Your task to perform on an android device: turn on the 24-hour format for clock Image 0: 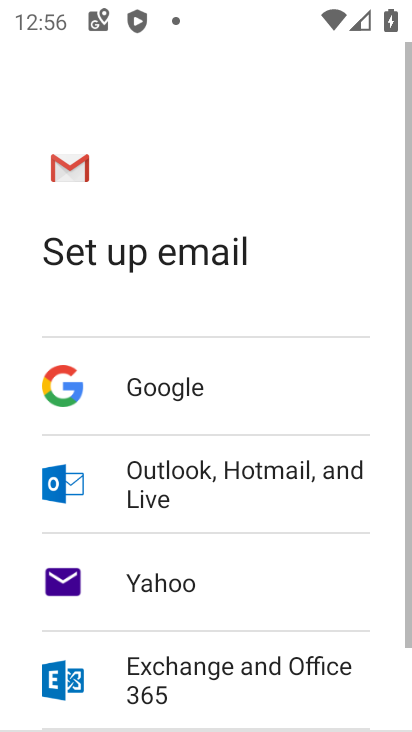
Step 0: press home button
Your task to perform on an android device: turn on the 24-hour format for clock Image 1: 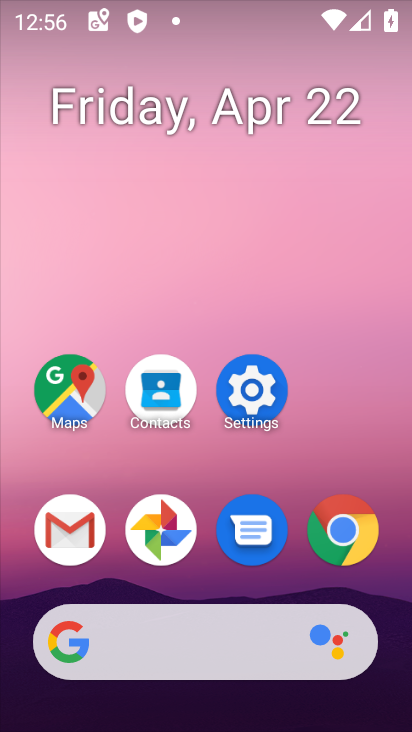
Step 1: drag from (229, 716) to (160, 2)
Your task to perform on an android device: turn on the 24-hour format for clock Image 2: 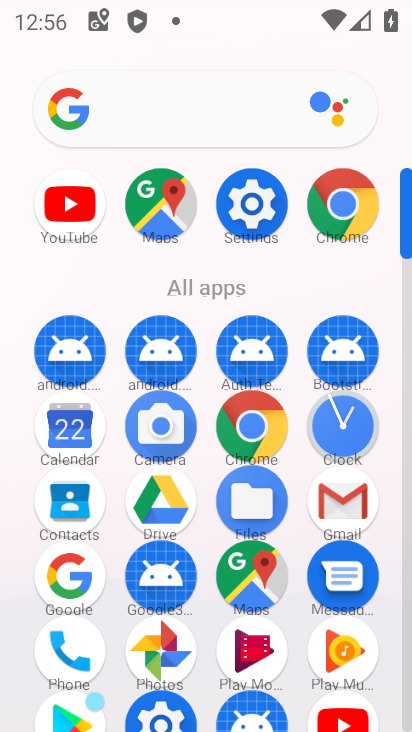
Step 2: click (348, 417)
Your task to perform on an android device: turn on the 24-hour format for clock Image 3: 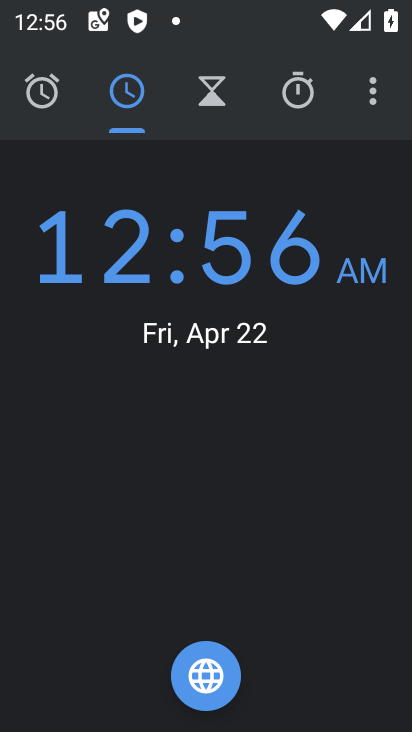
Step 3: click (374, 99)
Your task to perform on an android device: turn on the 24-hour format for clock Image 4: 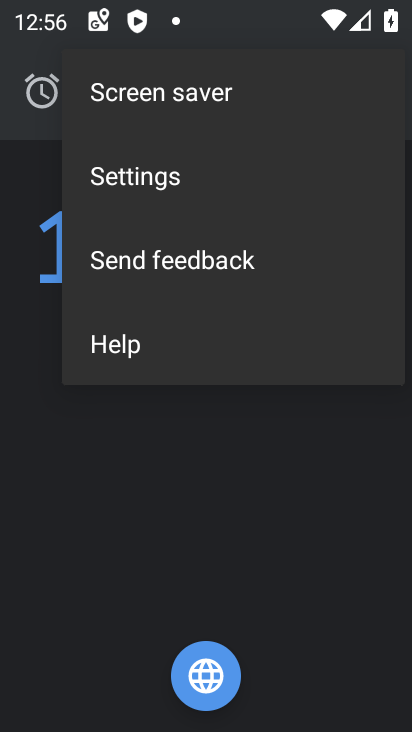
Step 4: click (134, 182)
Your task to perform on an android device: turn on the 24-hour format for clock Image 5: 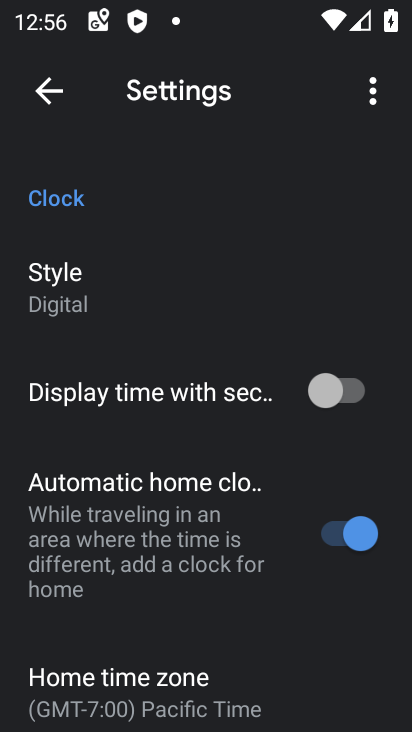
Step 5: drag from (250, 585) to (195, 101)
Your task to perform on an android device: turn on the 24-hour format for clock Image 6: 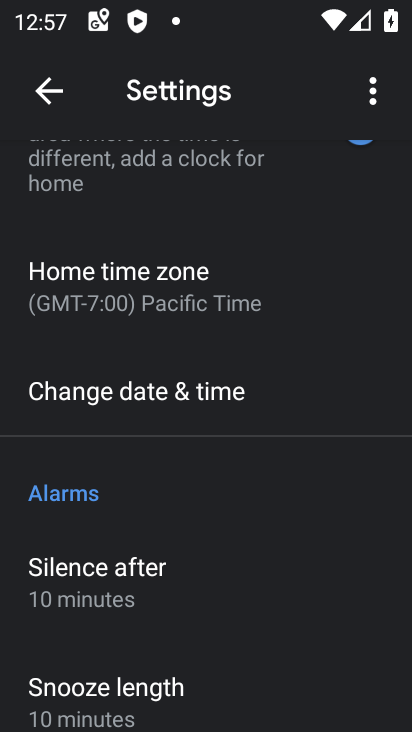
Step 6: click (179, 390)
Your task to perform on an android device: turn on the 24-hour format for clock Image 7: 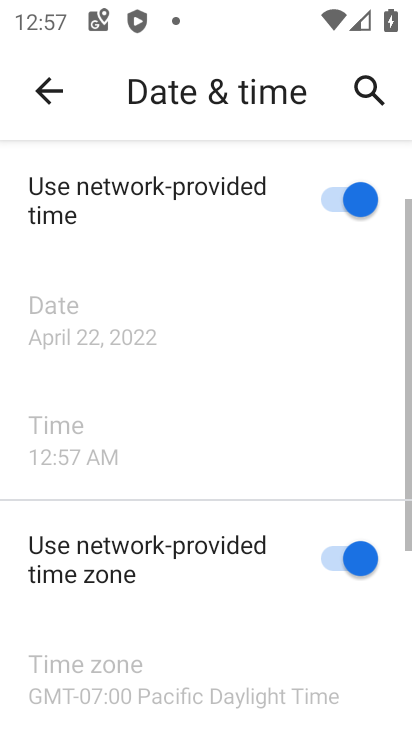
Step 7: drag from (257, 599) to (276, 154)
Your task to perform on an android device: turn on the 24-hour format for clock Image 8: 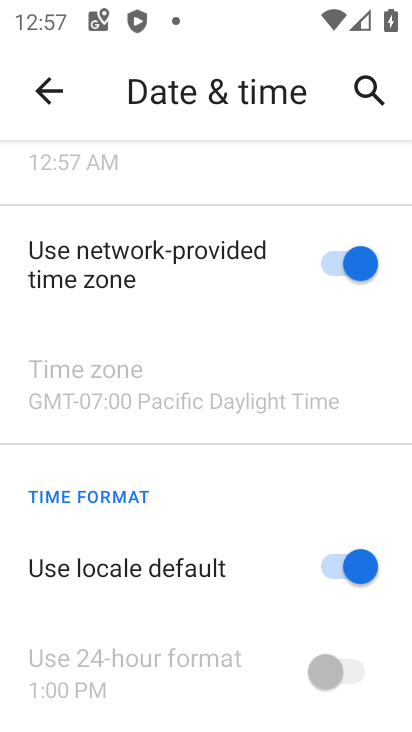
Step 8: click (354, 574)
Your task to perform on an android device: turn on the 24-hour format for clock Image 9: 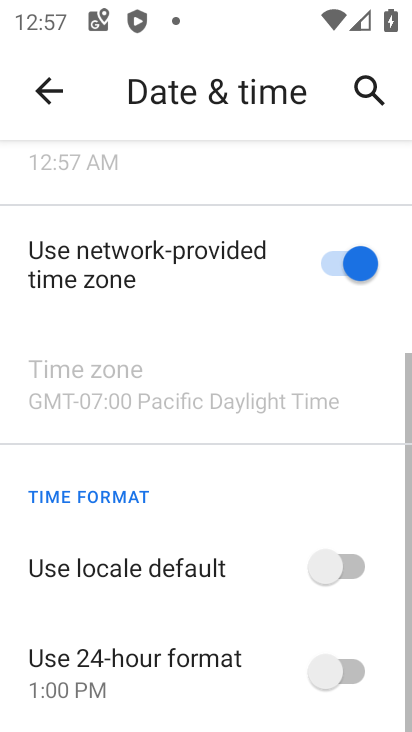
Step 9: click (335, 676)
Your task to perform on an android device: turn on the 24-hour format for clock Image 10: 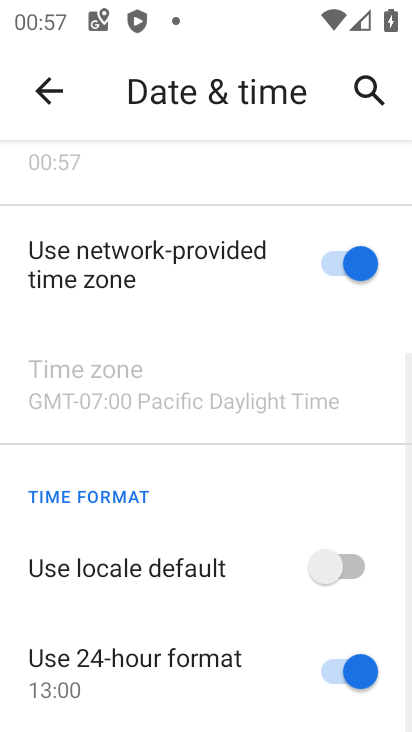
Step 10: task complete